Your task to perform on an android device: toggle sleep mode Image 0: 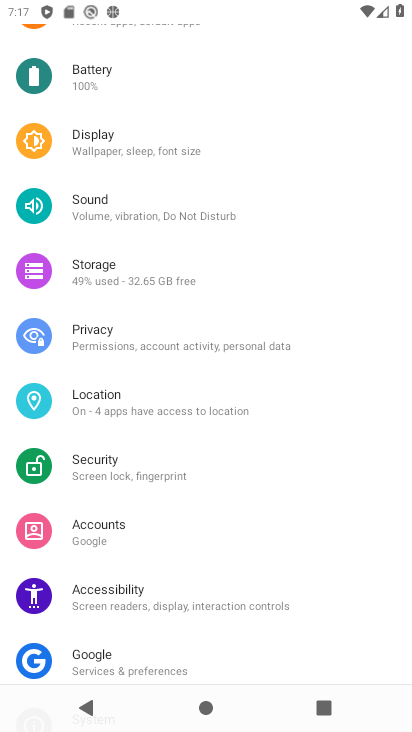
Step 0: drag from (185, 207) to (140, 631)
Your task to perform on an android device: toggle sleep mode Image 1: 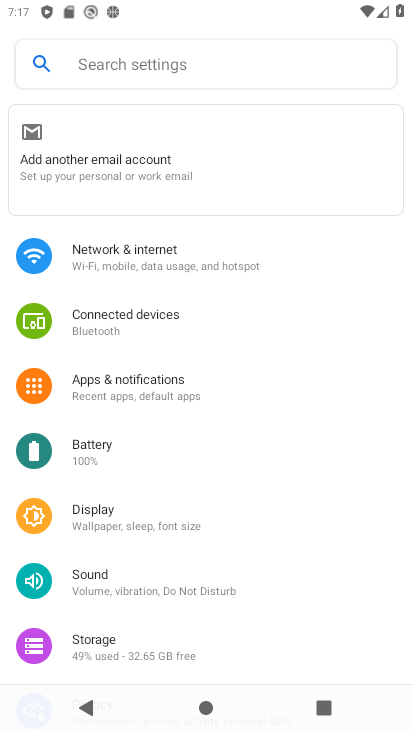
Step 1: click (116, 61)
Your task to perform on an android device: toggle sleep mode Image 2: 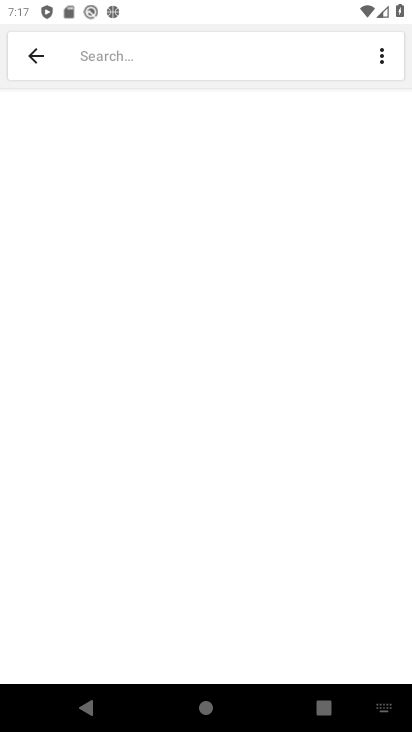
Step 2: click (91, 57)
Your task to perform on an android device: toggle sleep mode Image 3: 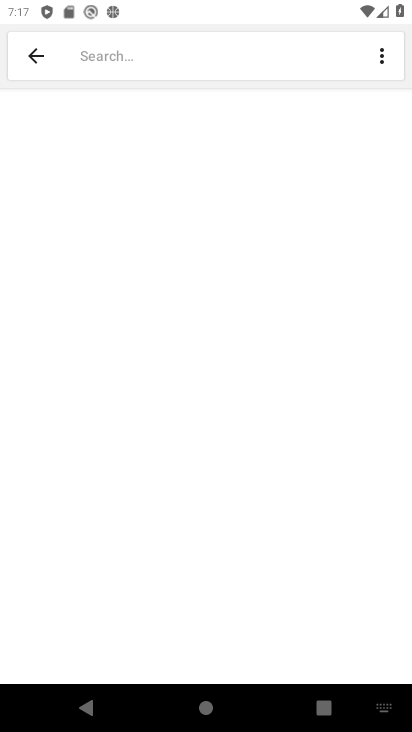
Step 3: type "sleep mode"
Your task to perform on an android device: toggle sleep mode Image 4: 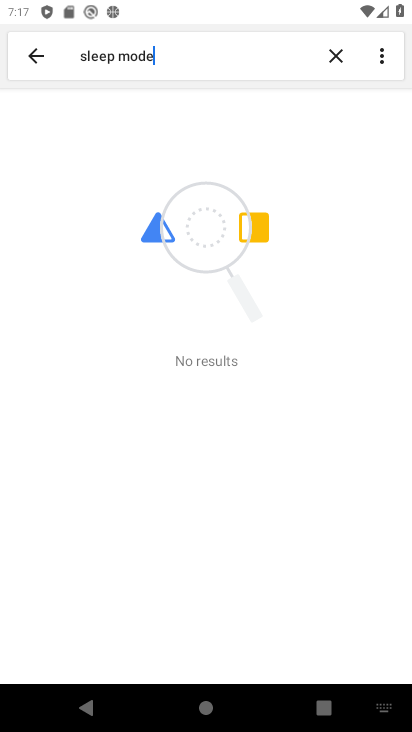
Step 4: task complete